Your task to perform on an android device: create a new album in the google photos Image 0: 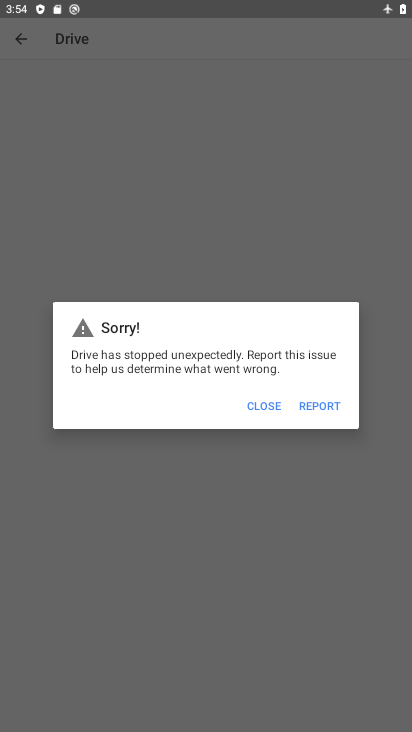
Step 0: press back button
Your task to perform on an android device: create a new album in the google photos Image 1: 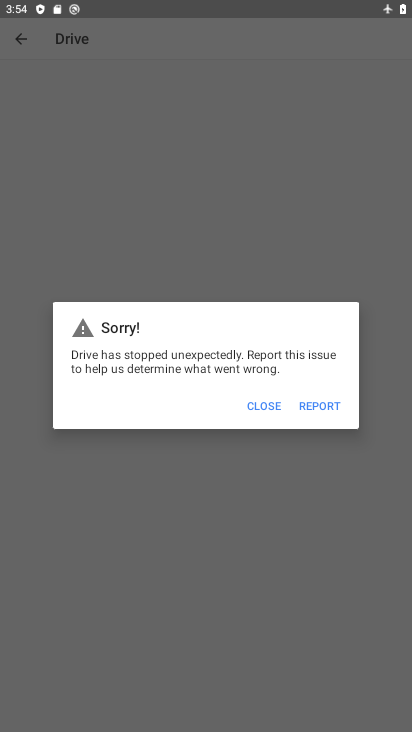
Step 1: press back button
Your task to perform on an android device: create a new album in the google photos Image 2: 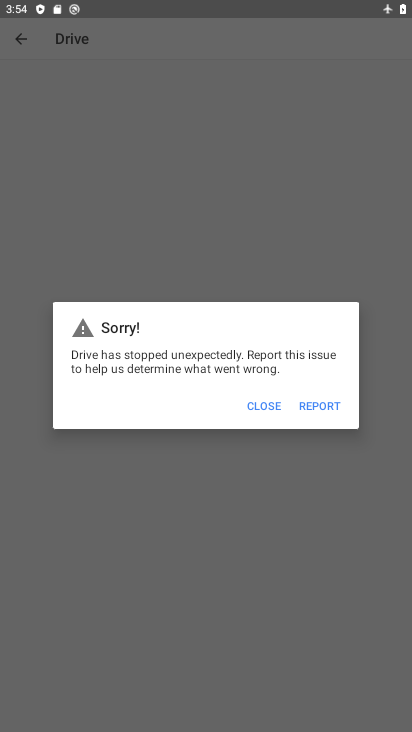
Step 2: press home button
Your task to perform on an android device: create a new album in the google photos Image 3: 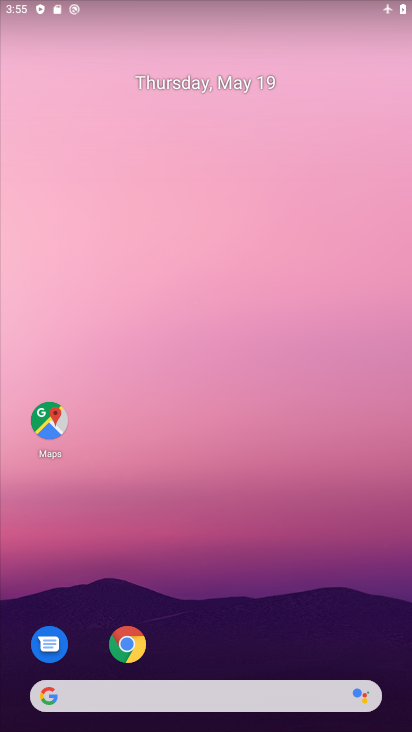
Step 3: drag from (355, 549) to (200, 33)
Your task to perform on an android device: create a new album in the google photos Image 4: 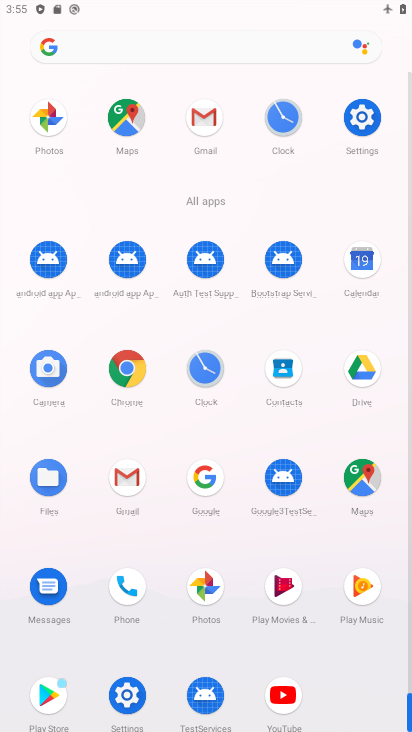
Step 4: drag from (7, 526) to (6, 213)
Your task to perform on an android device: create a new album in the google photos Image 5: 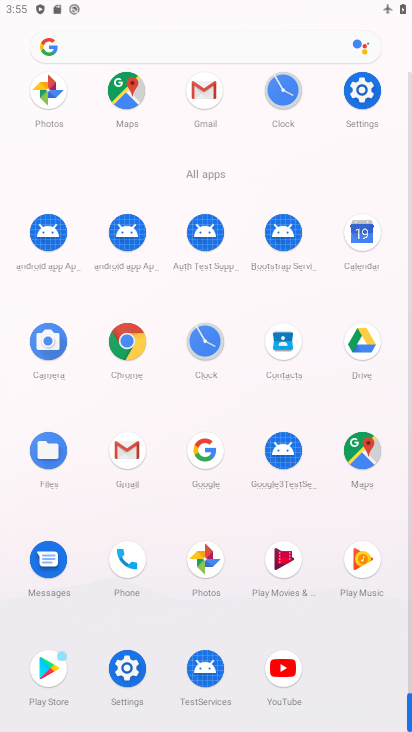
Step 5: click (205, 558)
Your task to perform on an android device: create a new album in the google photos Image 6: 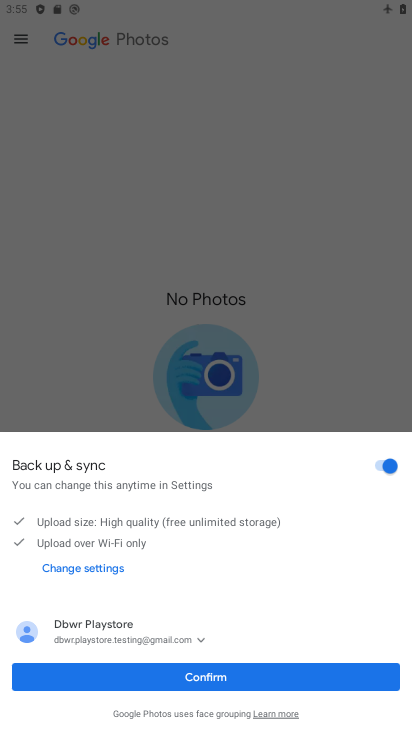
Step 6: click (177, 682)
Your task to perform on an android device: create a new album in the google photos Image 7: 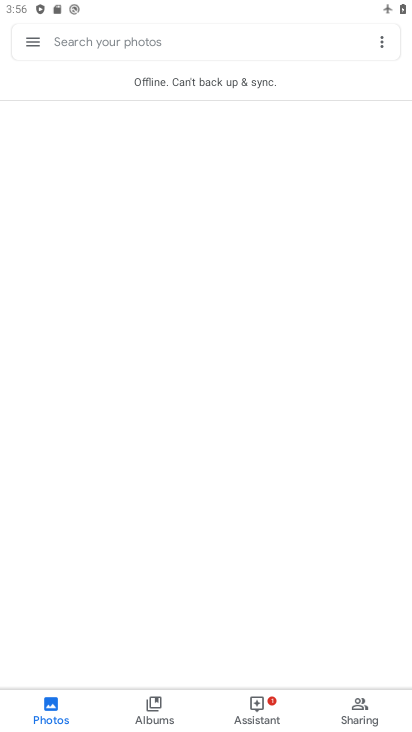
Step 7: task complete